Your task to perform on an android device: set an alarm Image 0: 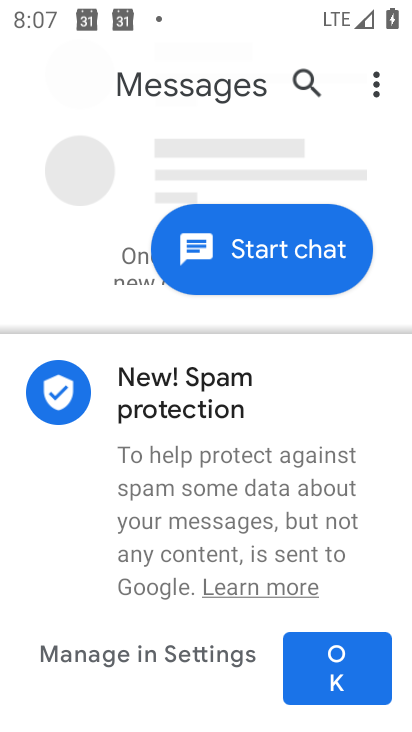
Step 0: press home button
Your task to perform on an android device: set an alarm Image 1: 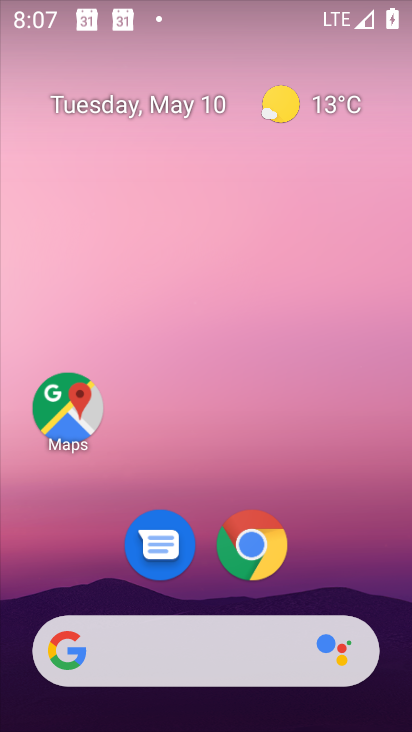
Step 1: drag from (203, 579) to (223, 167)
Your task to perform on an android device: set an alarm Image 2: 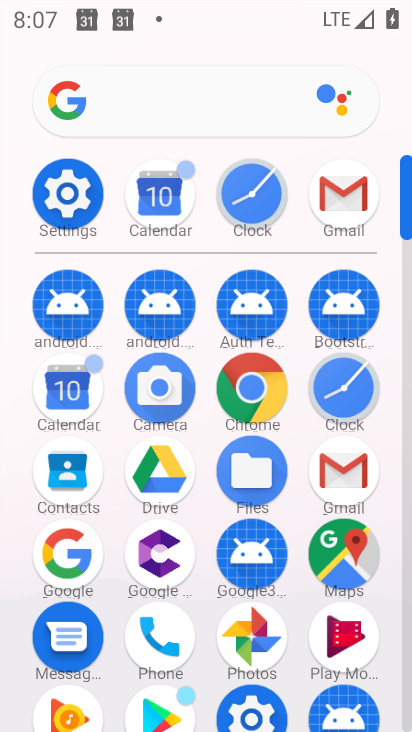
Step 2: click (342, 382)
Your task to perform on an android device: set an alarm Image 3: 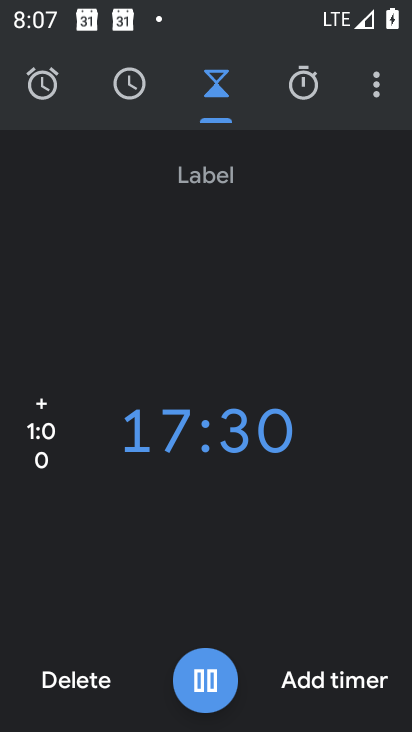
Step 3: click (83, 683)
Your task to perform on an android device: set an alarm Image 4: 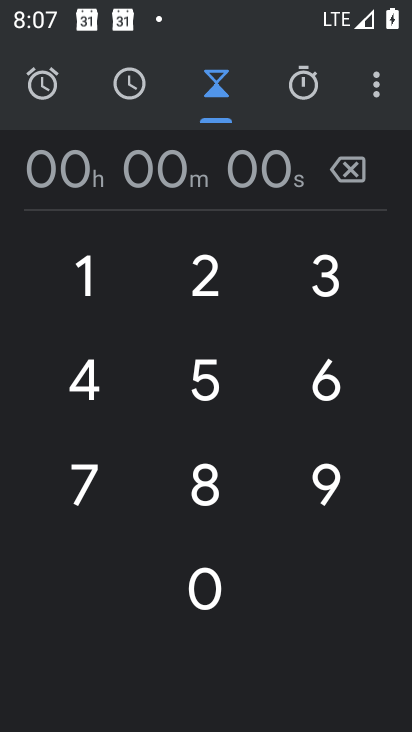
Step 4: click (38, 77)
Your task to perform on an android device: set an alarm Image 5: 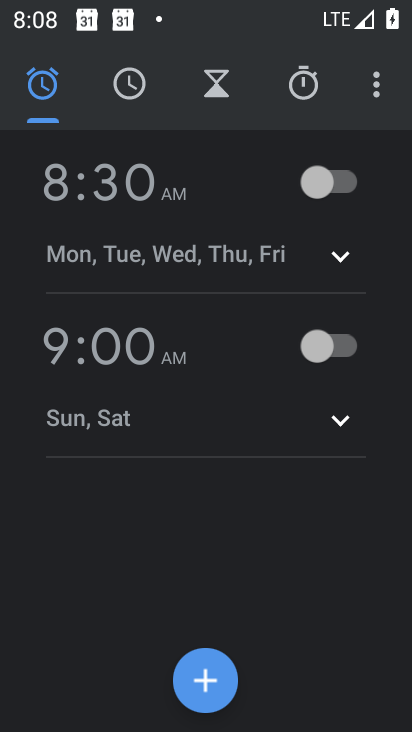
Step 5: click (330, 178)
Your task to perform on an android device: set an alarm Image 6: 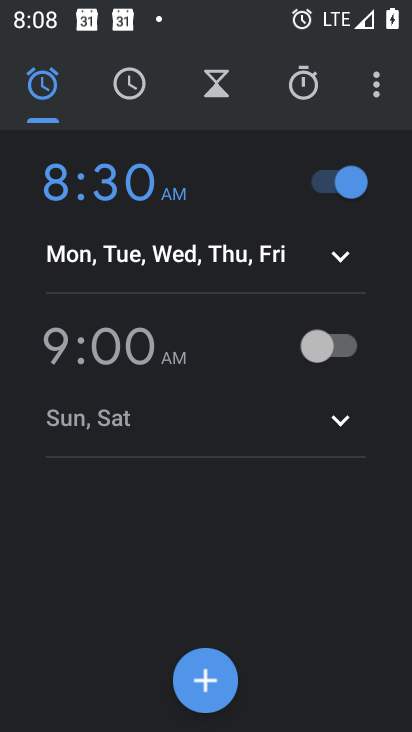
Step 6: task complete